Your task to perform on an android device: open sync settings in chrome Image 0: 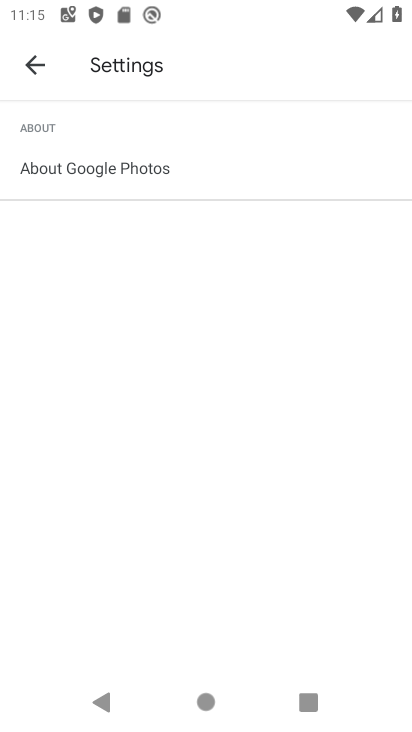
Step 0: press home button
Your task to perform on an android device: open sync settings in chrome Image 1: 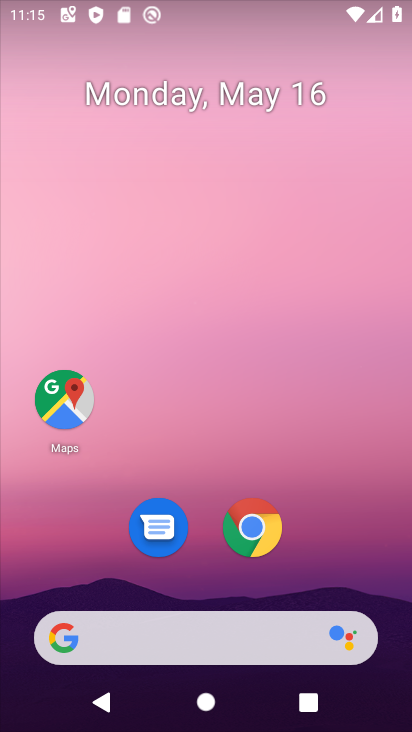
Step 1: drag from (281, 655) to (222, 117)
Your task to perform on an android device: open sync settings in chrome Image 2: 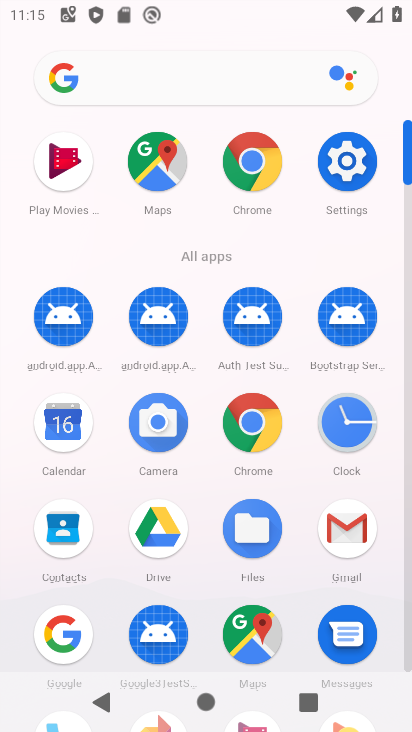
Step 2: click (264, 160)
Your task to perform on an android device: open sync settings in chrome Image 3: 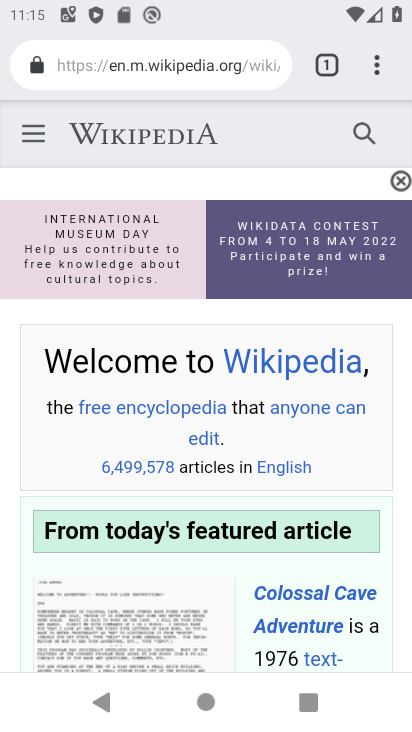
Step 3: click (381, 64)
Your task to perform on an android device: open sync settings in chrome Image 4: 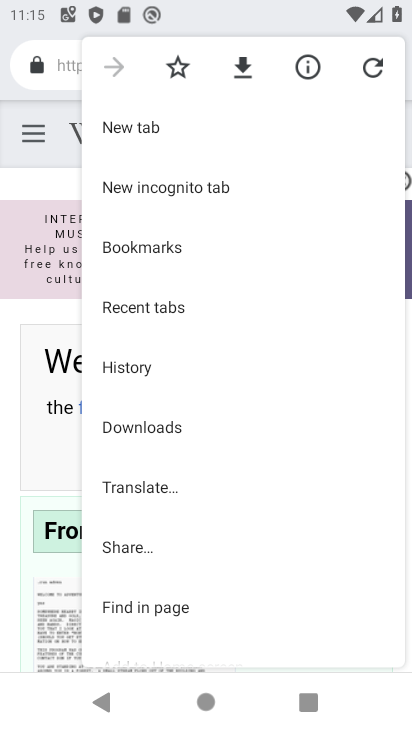
Step 4: drag from (209, 486) to (210, 325)
Your task to perform on an android device: open sync settings in chrome Image 5: 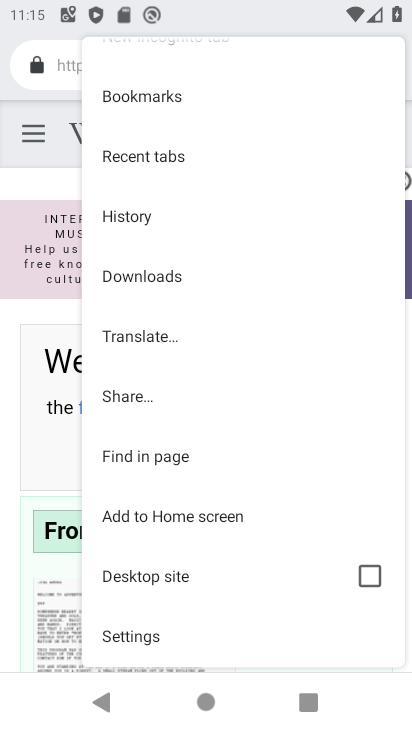
Step 5: click (136, 628)
Your task to perform on an android device: open sync settings in chrome Image 6: 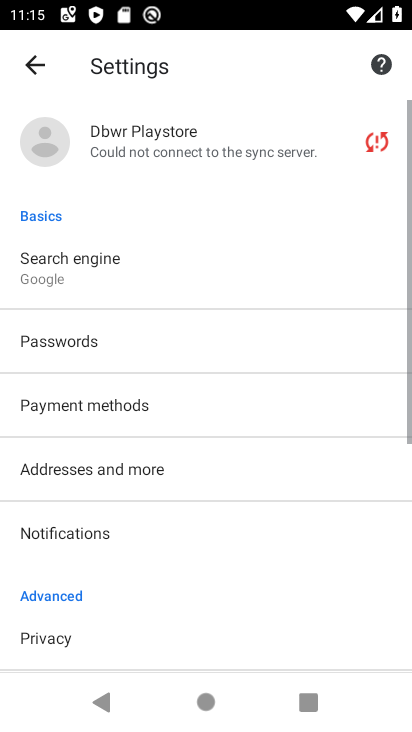
Step 6: drag from (147, 609) to (244, 364)
Your task to perform on an android device: open sync settings in chrome Image 7: 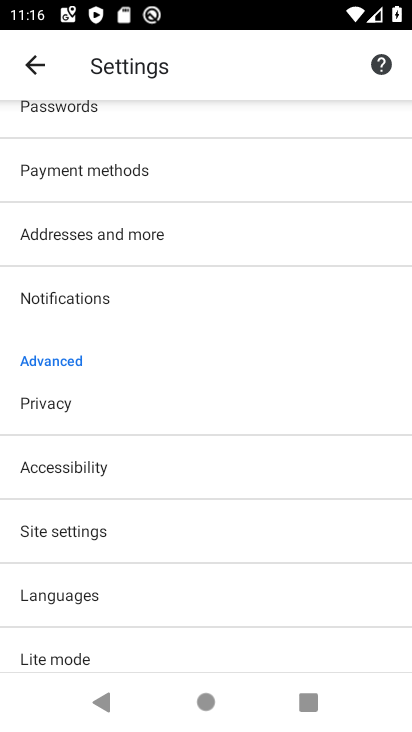
Step 7: click (70, 539)
Your task to perform on an android device: open sync settings in chrome Image 8: 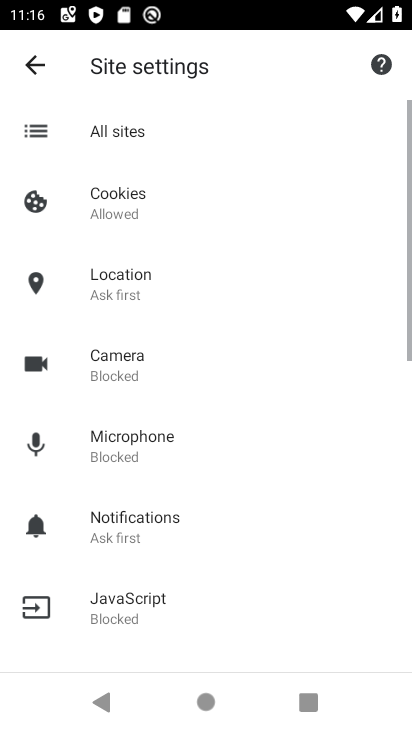
Step 8: drag from (159, 596) to (184, 312)
Your task to perform on an android device: open sync settings in chrome Image 9: 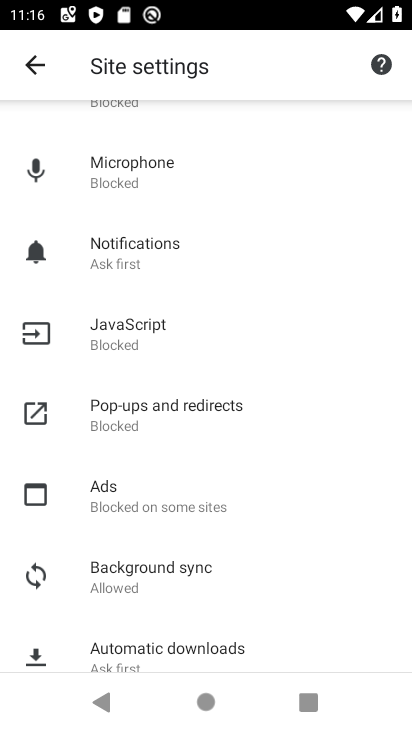
Step 9: click (197, 572)
Your task to perform on an android device: open sync settings in chrome Image 10: 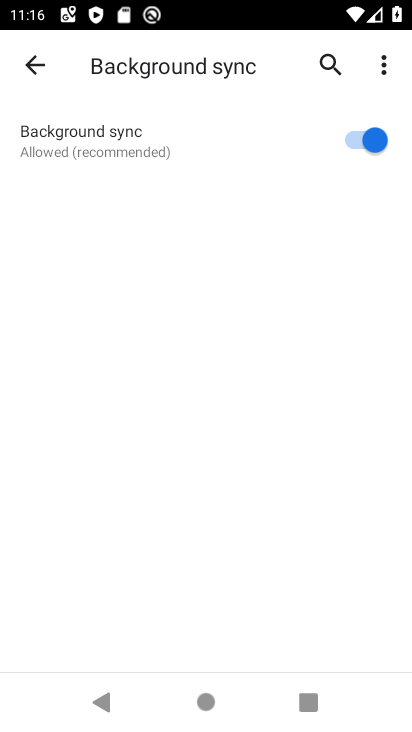
Step 10: task complete